Your task to perform on an android device: Search for "razer blade" on newegg.com, select the first entry, add it to the cart, then select checkout. Image 0: 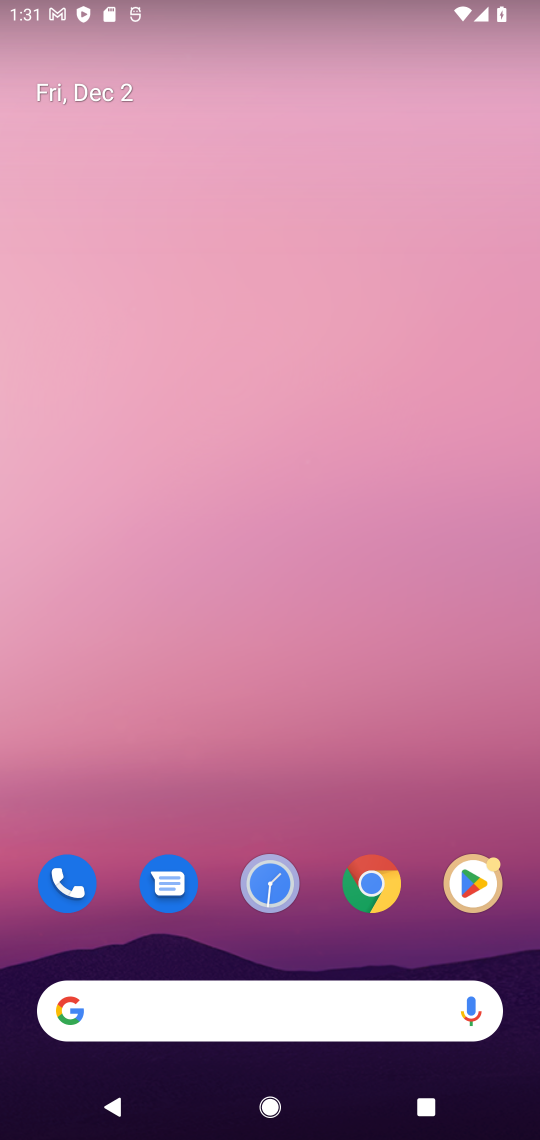
Step 0: click (358, 898)
Your task to perform on an android device: Search for "razer blade" on newegg.com, select the first entry, add it to the cart, then select checkout. Image 1: 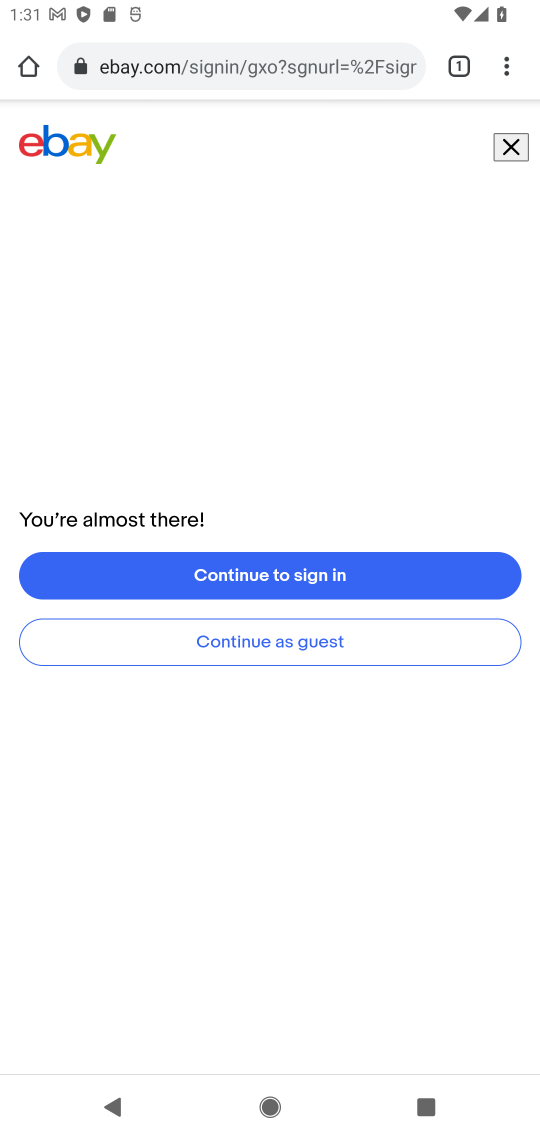
Step 1: click (335, 69)
Your task to perform on an android device: Search for "razer blade" on newegg.com, select the first entry, add it to the cart, then select checkout. Image 2: 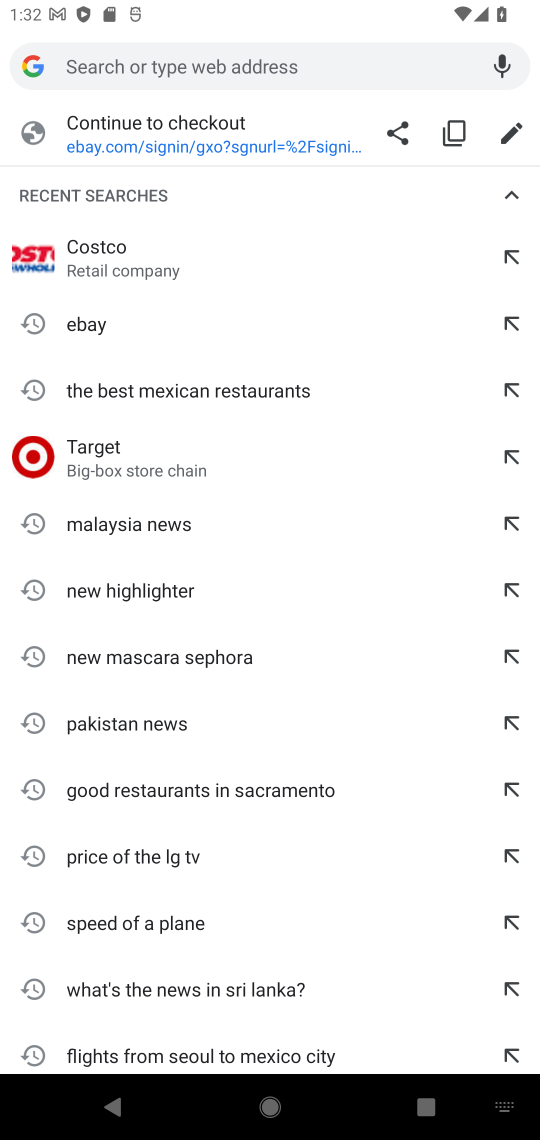
Step 2: type "newegg"
Your task to perform on an android device: Search for "razer blade" on newegg.com, select the first entry, add it to the cart, then select checkout. Image 3: 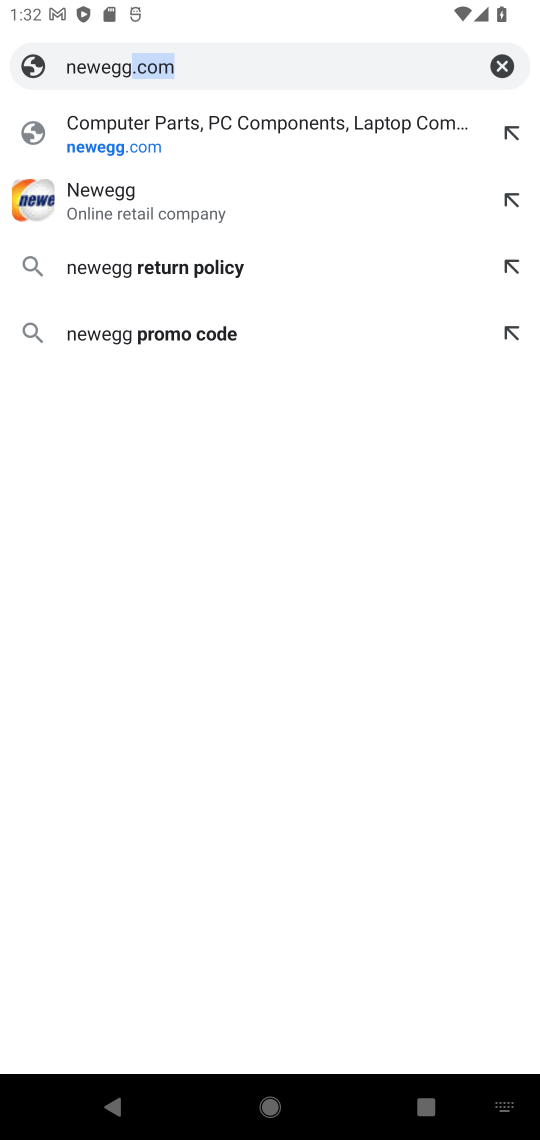
Step 3: click (155, 142)
Your task to perform on an android device: Search for "razer blade" on newegg.com, select the first entry, add it to the cart, then select checkout. Image 4: 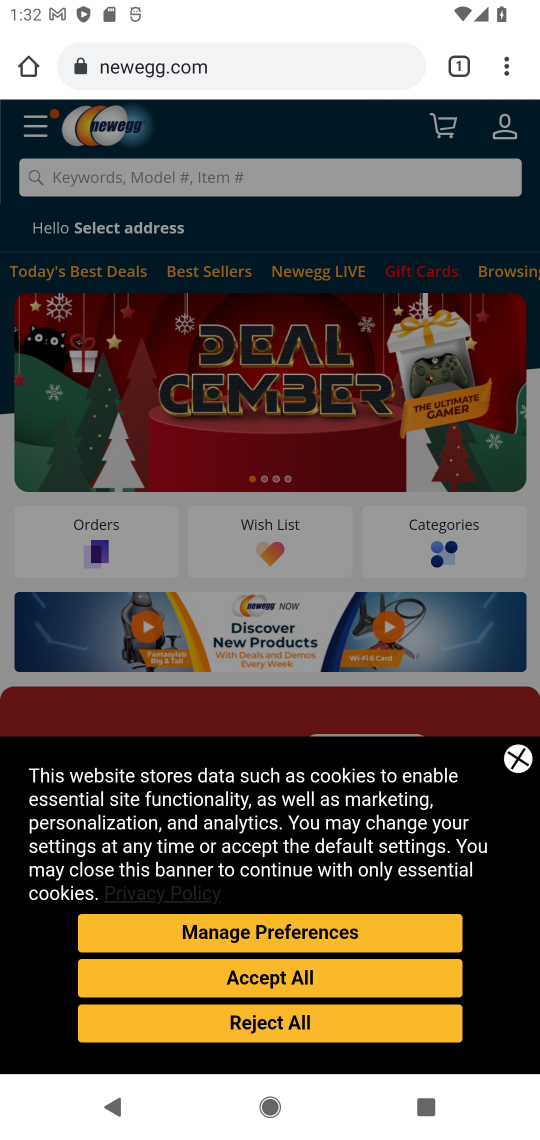
Step 4: click (287, 166)
Your task to perform on an android device: Search for "razer blade" on newegg.com, select the first entry, add it to the cart, then select checkout. Image 5: 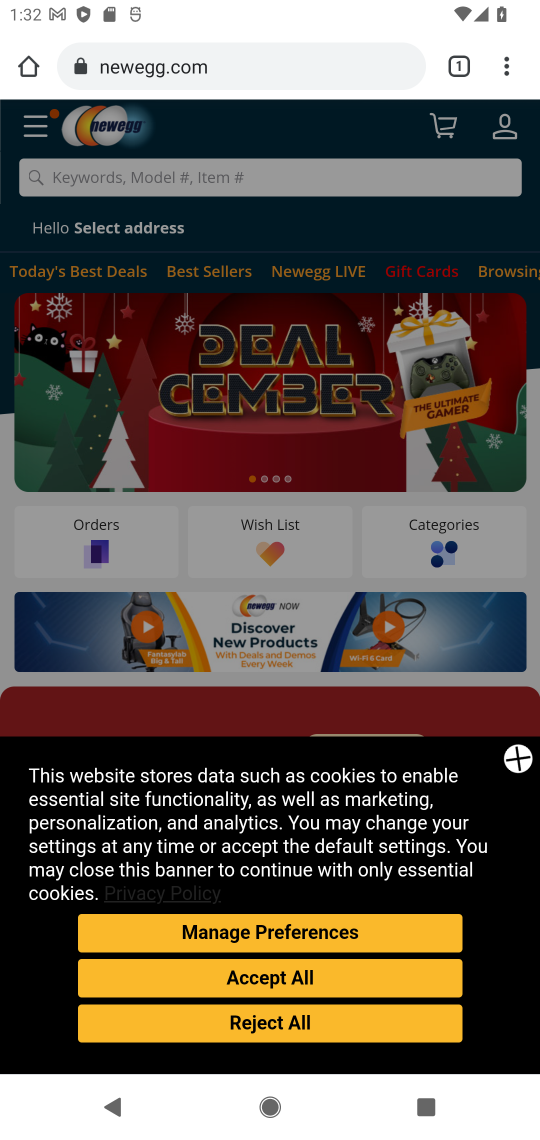
Step 5: click (287, 166)
Your task to perform on an android device: Search for "razer blade" on newegg.com, select the first entry, add it to the cart, then select checkout. Image 6: 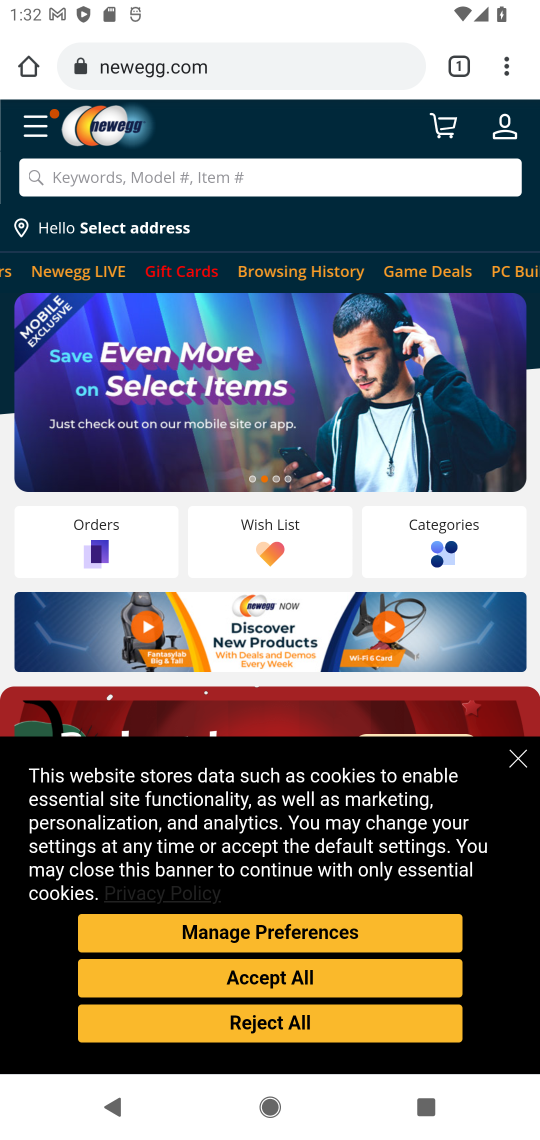
Step 6: click (309, 174)
Your task to perform on an android device: Search for "razer blade" on newegg.com, select the first entry, add it to the cart, then select checkout. Image 7: 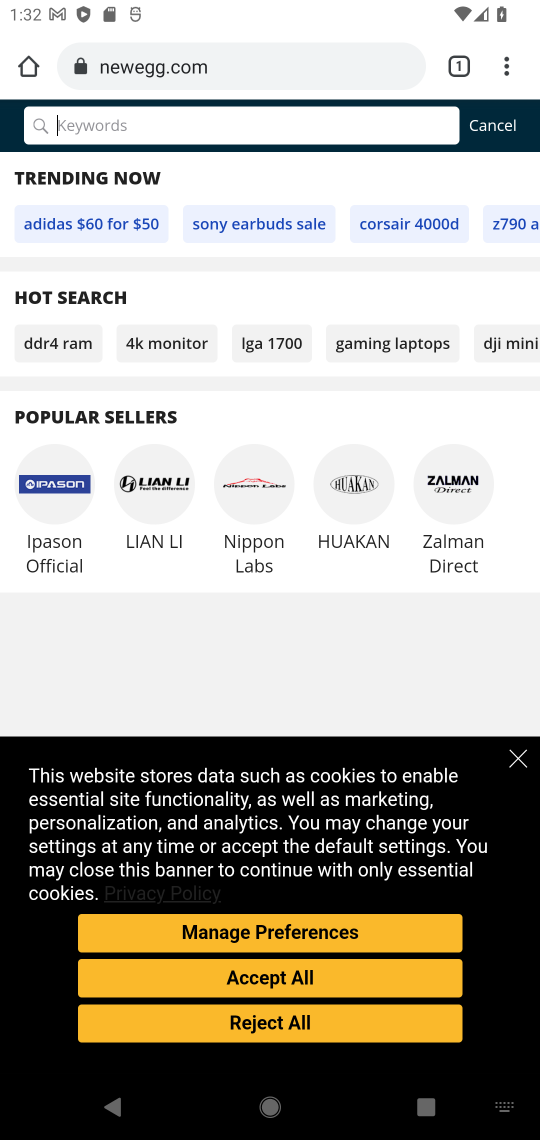
Step 7: click (520, 761)
Your task to perform on an android device: Search for "razer blade" on newegg.com, select the first entry, add it to the cart, then select checkout. Image 8: 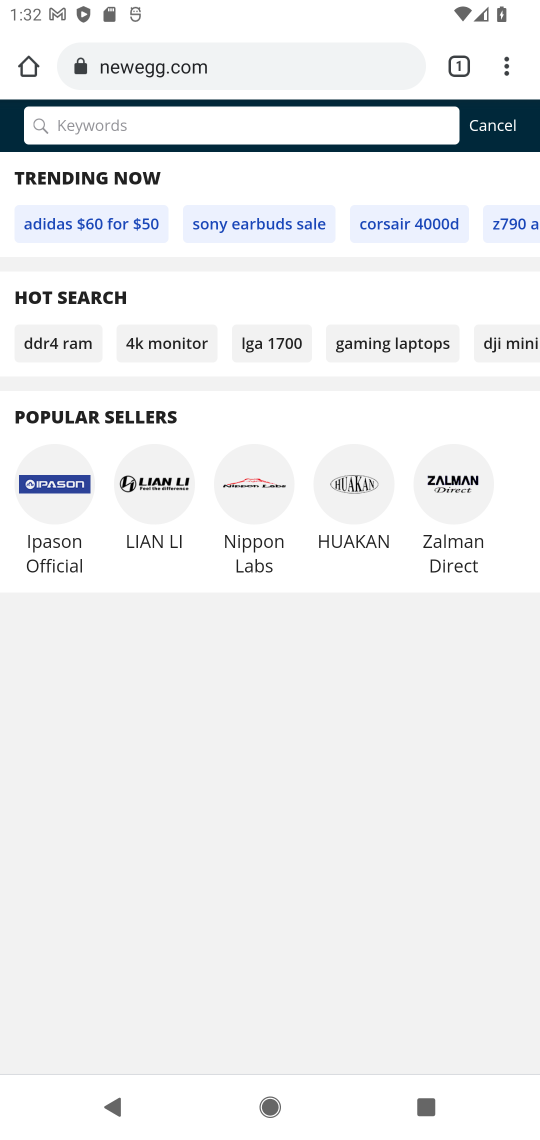
Step 8: click (377, 128)
Your task to perform on an android device: Search for "razer blade" on newegg.com, select the first entry, add it to the cart, then select checkout. Image 9: 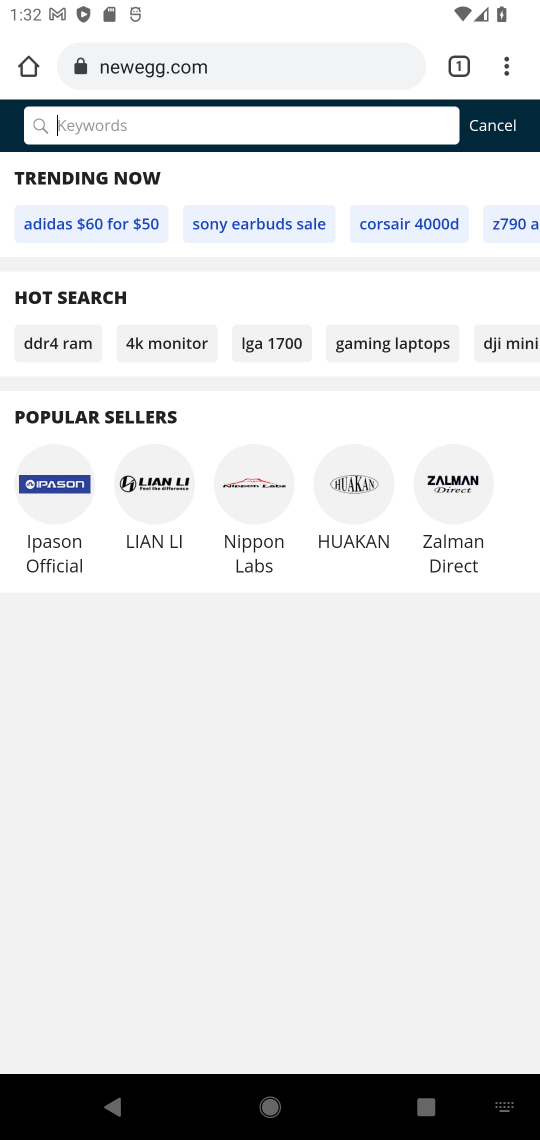
Step 9: type "razer blade"
Your task to perform on an android device: Search for "razer blade" on newegg.com, select the first entry, add it to the cart, then select checkout. Image 10: 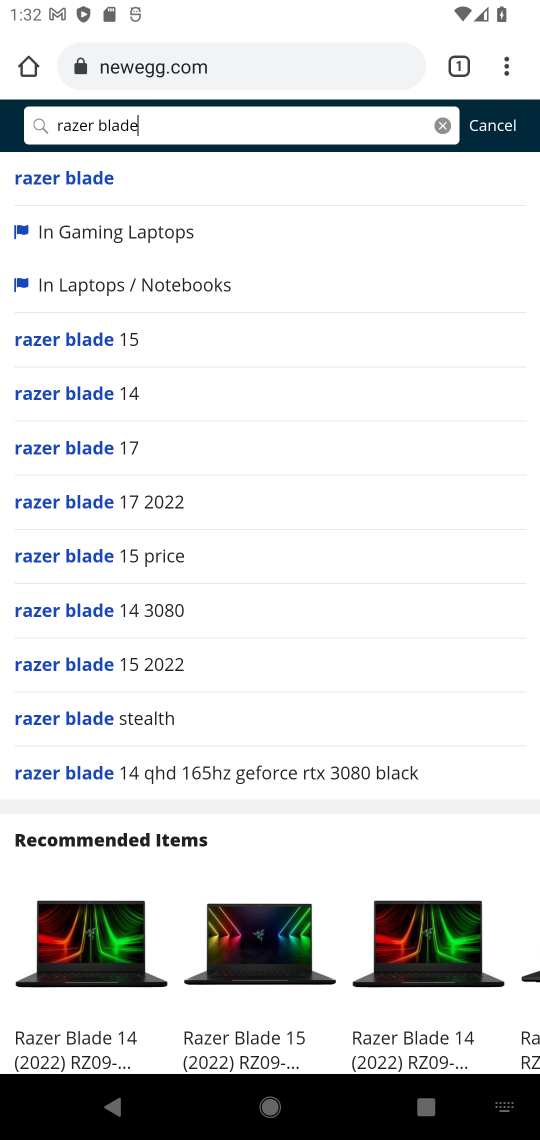
Step 10: click (84, 176)
Your task to perform on an android device: Search for "razer blade" on newegg.com, select the first entry, add it to the cart, then select checkout. Image 11: 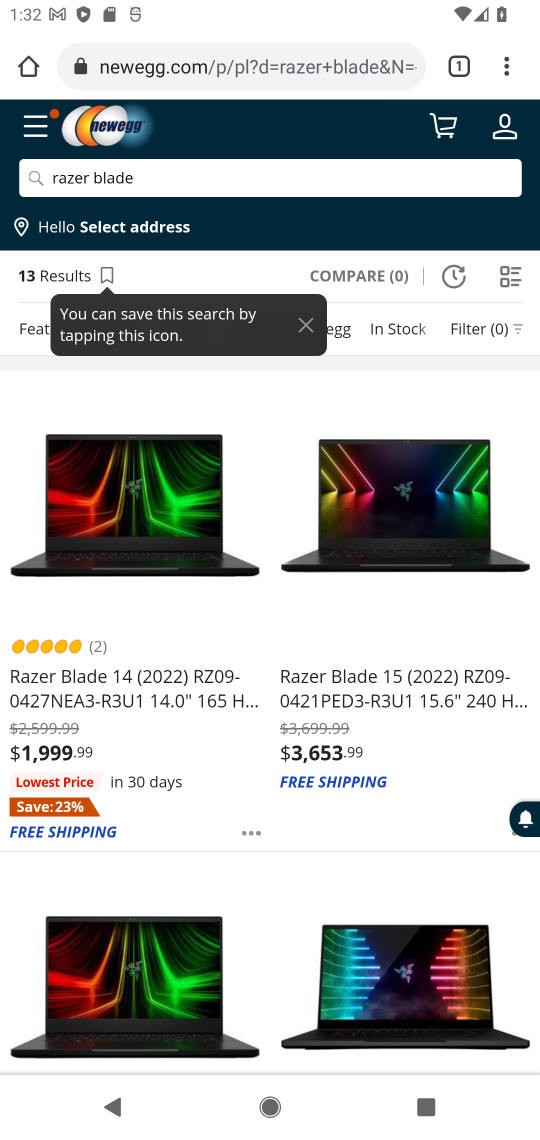
Step 11: click (112, 520)
Your task to perform on an android device: Search for "razer blade" on newegg.com, select the first entry, add it to the cart, then select checkout. Image 12: 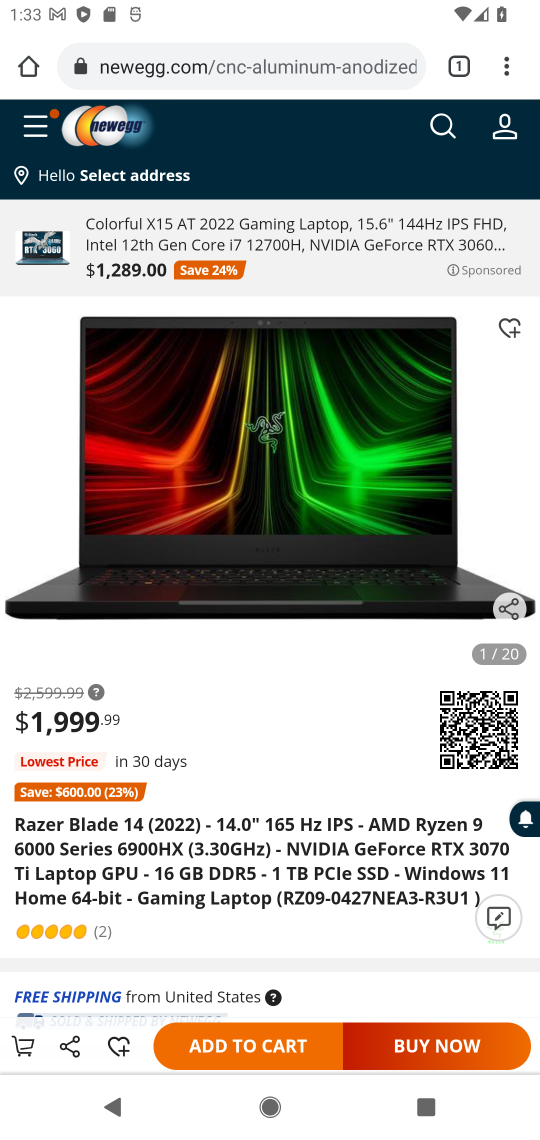
Step 12: click (243, 1049)
Your task to perform on an android device: Search for "razer blade" on newegg.com, select the first entry, add it to the cart, then select checkout. Image 13: 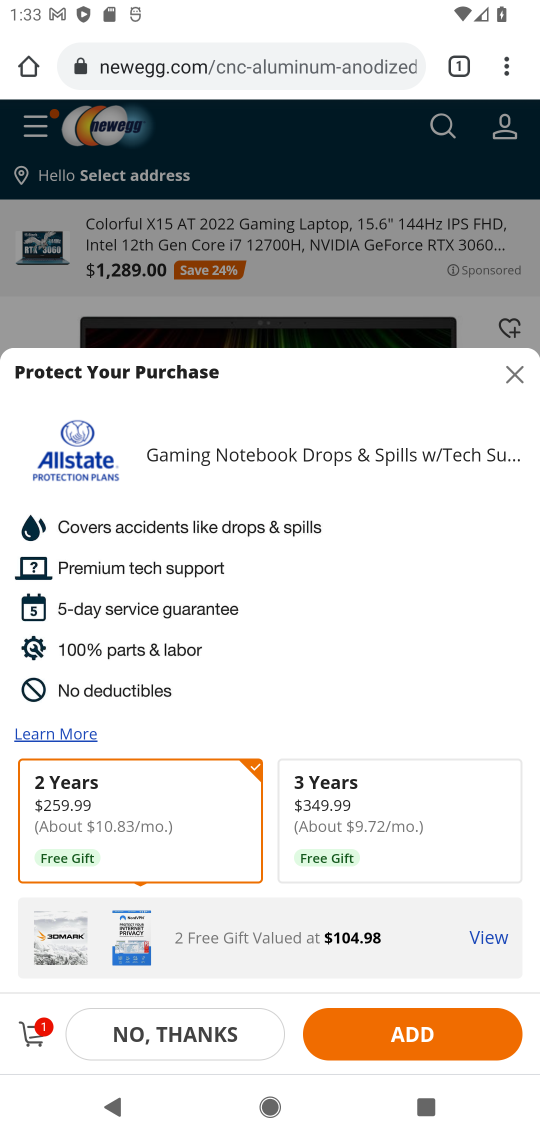
Step 13: click (182, 1028)
Your task to perform on an android device: Search for "razer blade" on newegg.com, select the first entry, add it to the cart, then select checkout. Image 14: 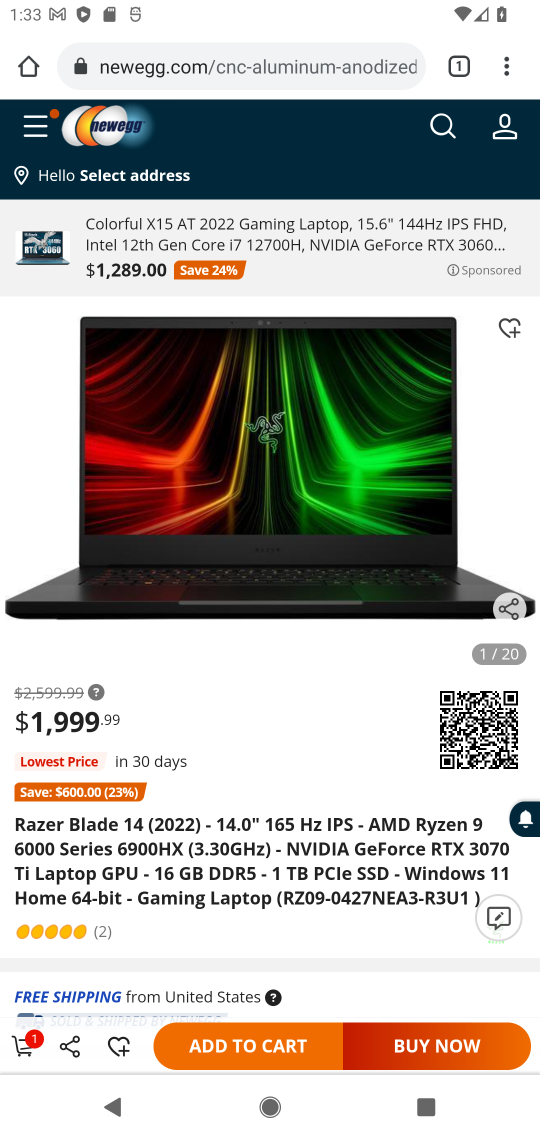
Step 14: task complete